Your task to perform on an android device: What's the weather? Image 0: 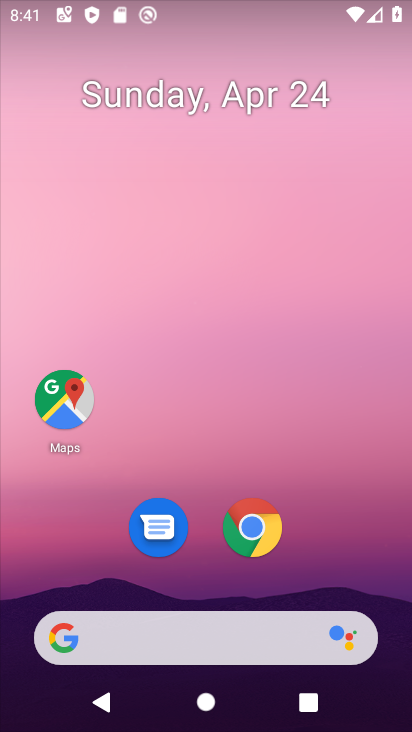
Step 0: drag from (37, 229) to (410, 255)
Your task to perform on an android device: What's the weather? Image 1: 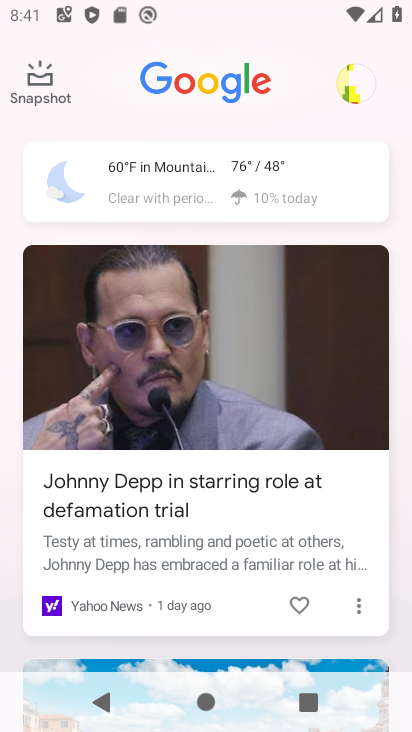
Step 1: click (241, 176)
Your task to perform on an android device: What's the weather? Image 2: 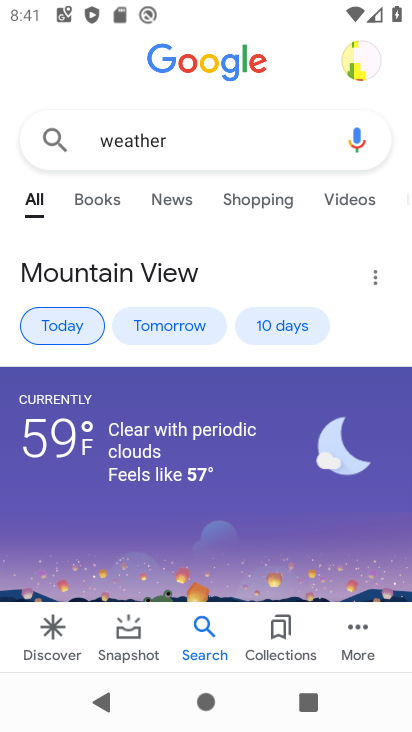
Step 2: task complete